Your task to perform on an android device: turn pop-ups off in chrome Image 0: 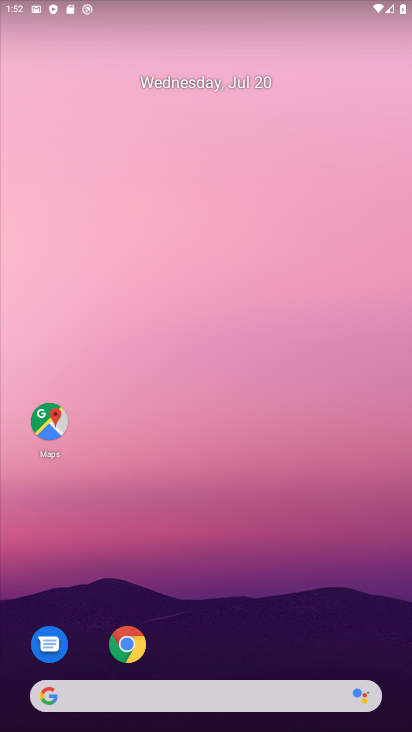
Step 0: click (131, 651)
Your task to perform on an android device: turn pop-ups off in chrome Image 1: 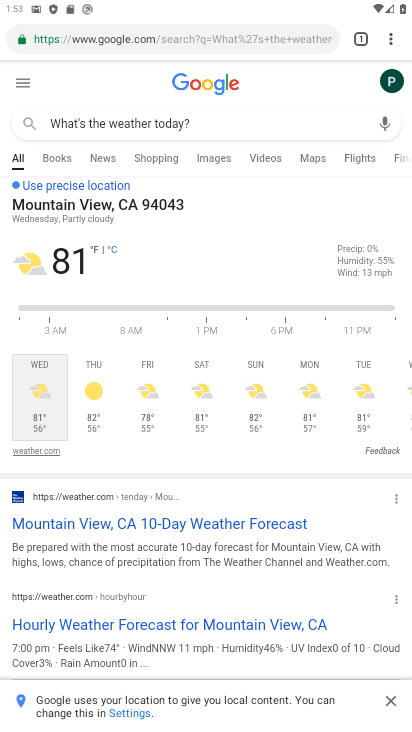
Step 1: drag from (392, 42) to (248, 440)
Your task to perform on an android device: turn pop-ups off in chrome Image 2: 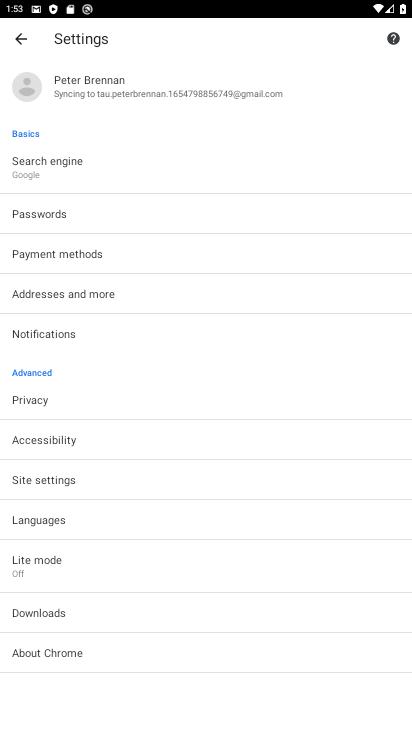
Step 2: click (50, 474)
Your task to perform on an android device: turn pop-ups off in chrome Image 3: 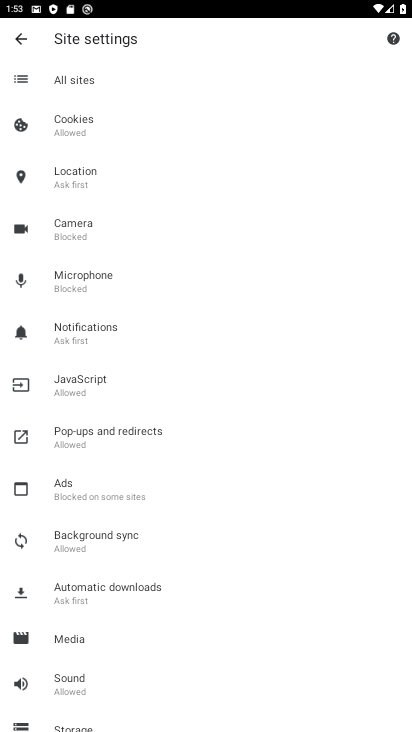
Step 3: click (51, 446)
Your task to perform on an android device: turn pop-ups off in chrome Image 4: 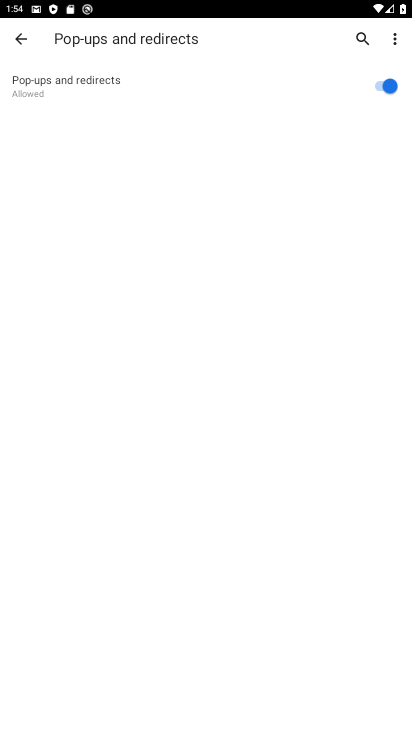
Step 4: click (327, 90)
Your task to perform on an android device: turn pop-ups off in chrome Image 5: 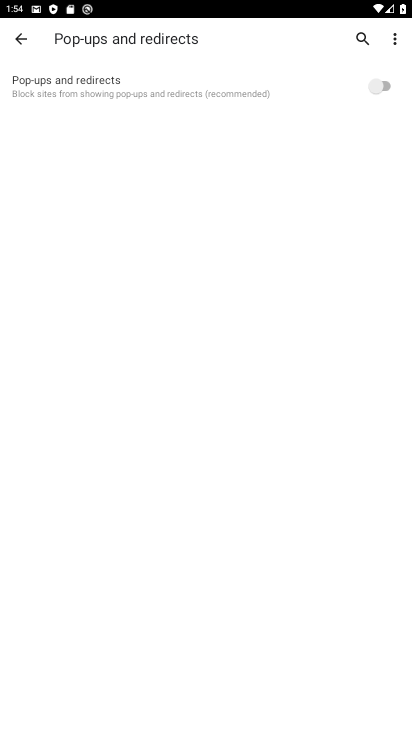
Step 5: task complete